Your task to perform on an android device: toggle javascript in the chrome app Image 0: 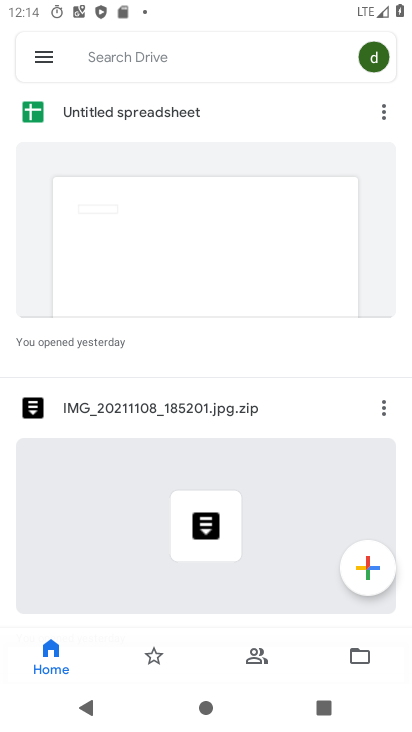
Step 0: press home button
Your task to perform on an android device: toggle javascript in the chrome app Image 1: 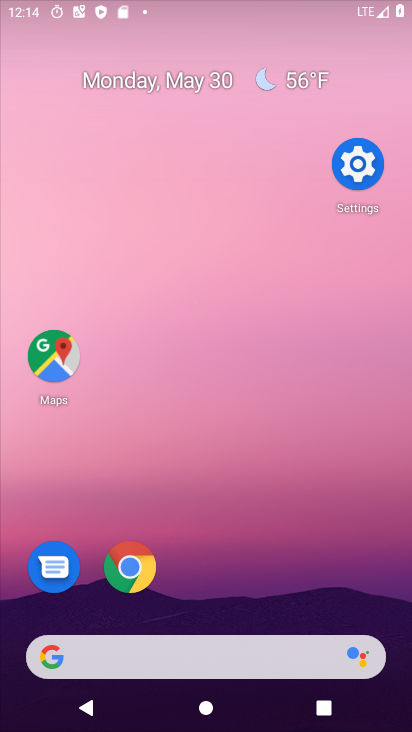
Step 1: drag from (354, 569) to (258, 231)
Your task to perform on an android device: toggle javascript in the chrome app Image 2: 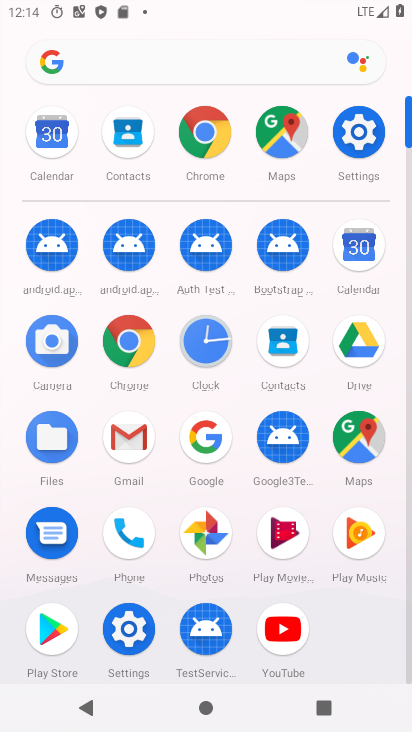
Step 2: click (134, 358)
Your task to perform on an android device: toggle javascript in the chrome app Image 3: 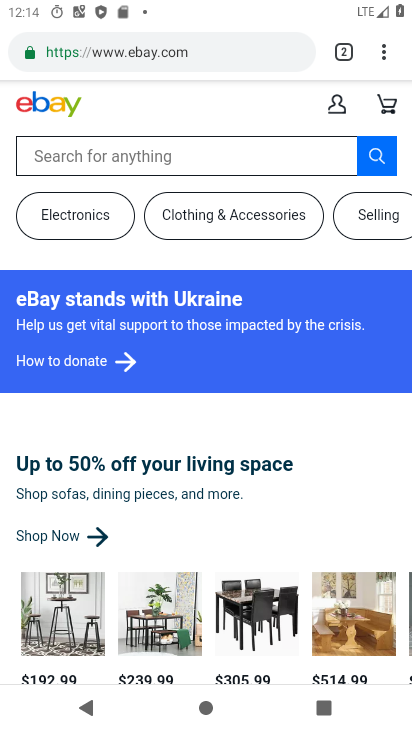
Step 3: drag from (385, 68) to (217, 584)
Your task to perform on an android device: toggle javascript in the chrome app Image 4: 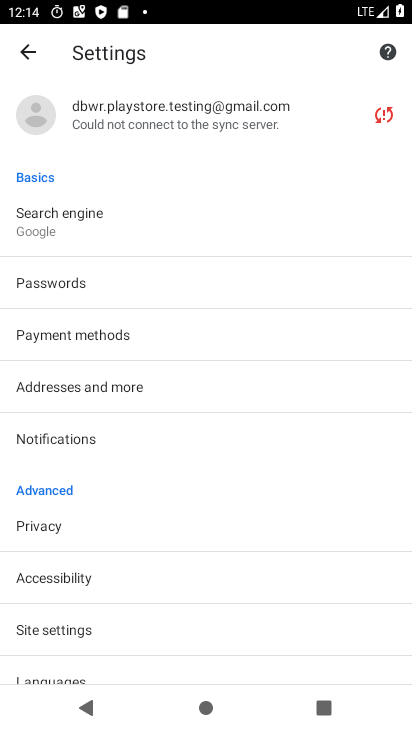
Step 4: drag from (185, 595) to (226, 306)
Your task to perform on an android device: toggle javascript in the chrome app Image 5: 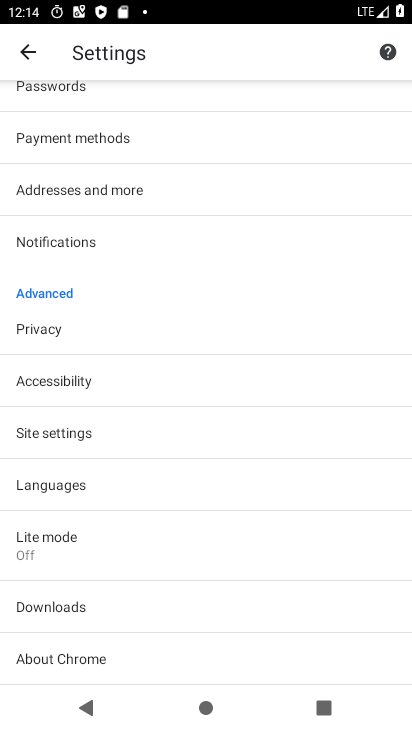
Step 5: click (100, 432)
Your task to perform on an android device: toggle javascript in the chrome app Image 6: 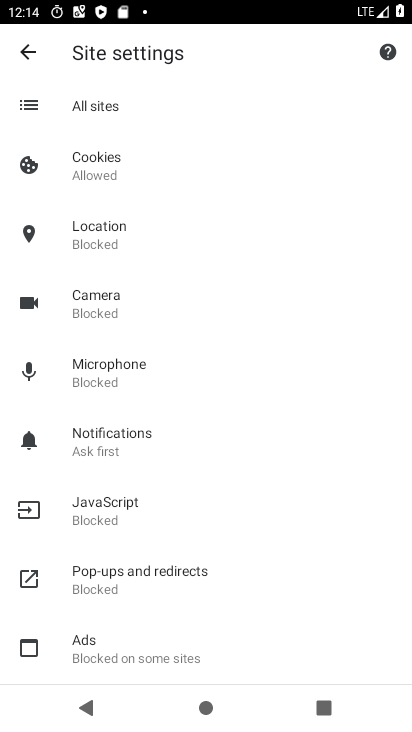
Step 6: click (149, 497)
Your task to perform on an android device: toggle javascript in the chrome app Image 7: 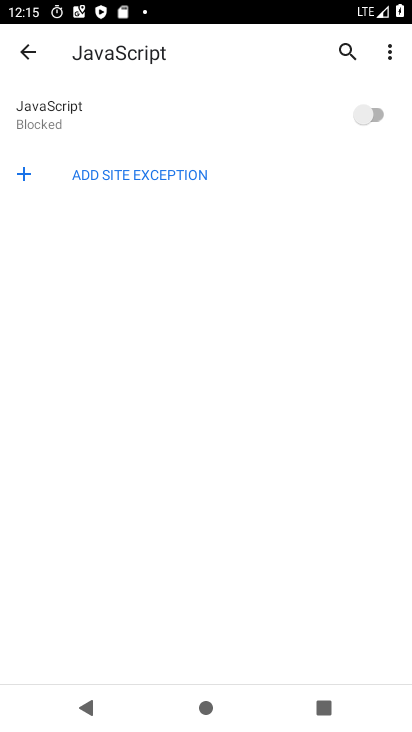
Step 7: click (378, 113)
Your task to perform on an android device: toggle javascript in the chrome app Image 8: 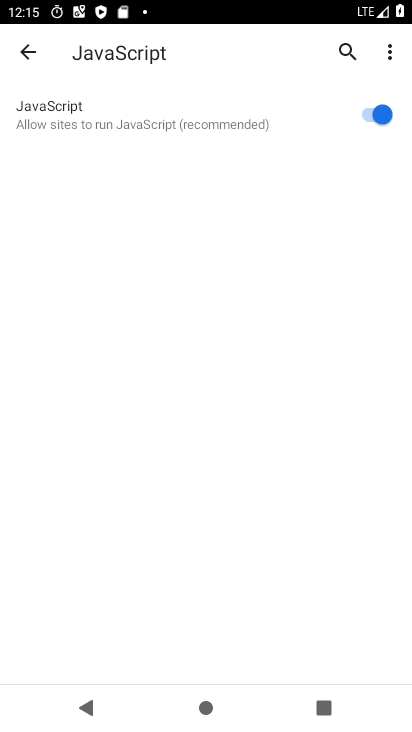
Step 8: task complete